Your task to perform on an android device: Go to display settings Image 0: 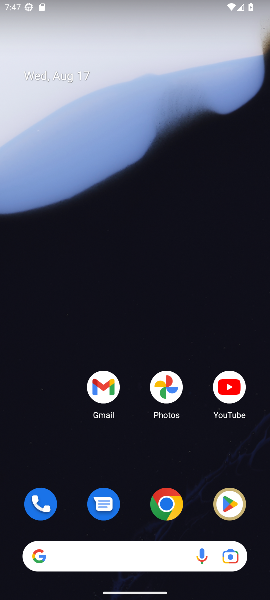
Step 0: drag from (124, 465) to (186, 227)
Your task to perform on an android device: Go to display settings Image 1: 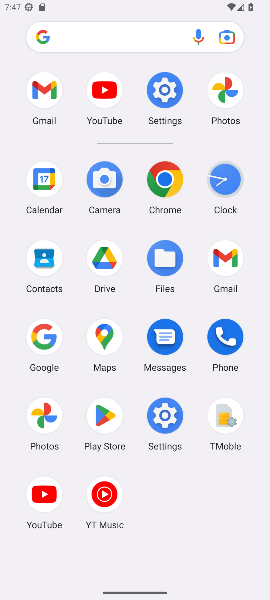
Step 1: click (173, 418)
Your task to perform on an android device: Go to display settings Image 2: 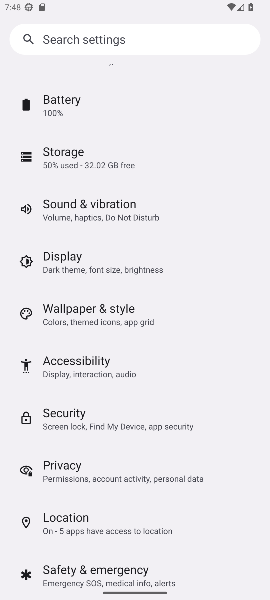
Step 2: click (148, 264)
Your task to perform on an android device: Go to display settings Image 3: 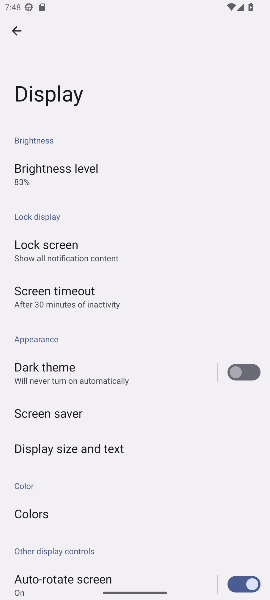
Step 3: task complete